Your task to perform on an android device: visit the assistant section in the google photos Image 0: 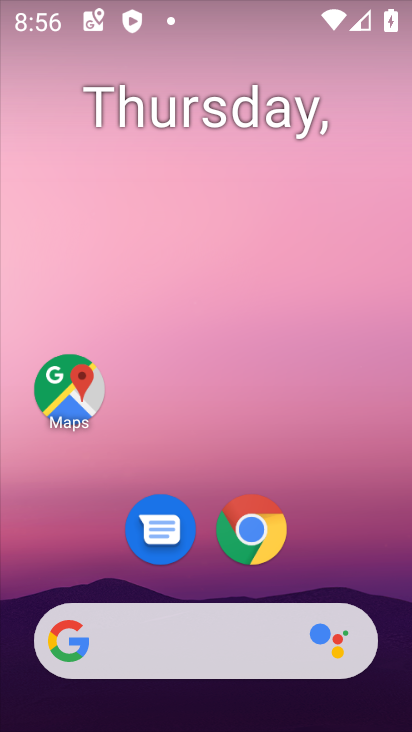
Step 0: drag from (201, 698) to (204, 135)
Your task to perform on an android device: visit the assistant section in the google photos Image 1: 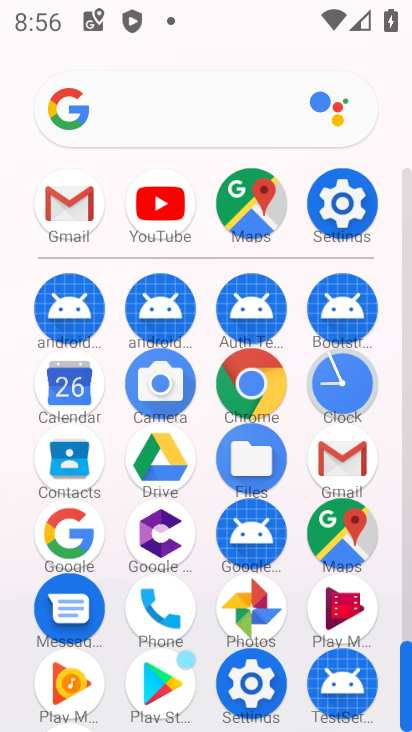
Step 1: click (256, 602)
Your task to perform on an android device: visit the assistant section in the google photos Image 2: 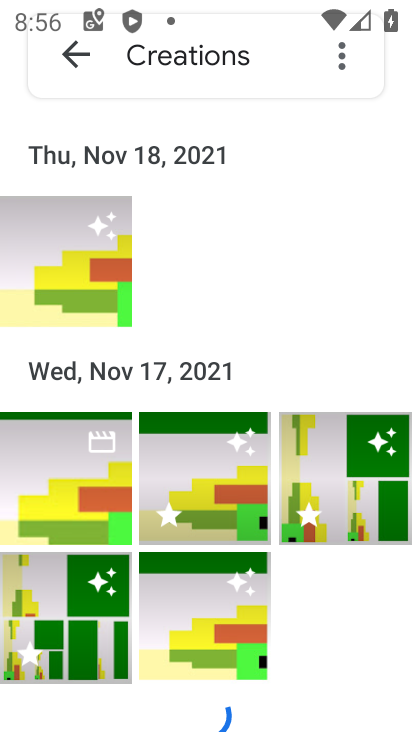
Step 2: click (79, 53)
Your task to perform on an android device: visit the assistant section in the google photos Image 3: 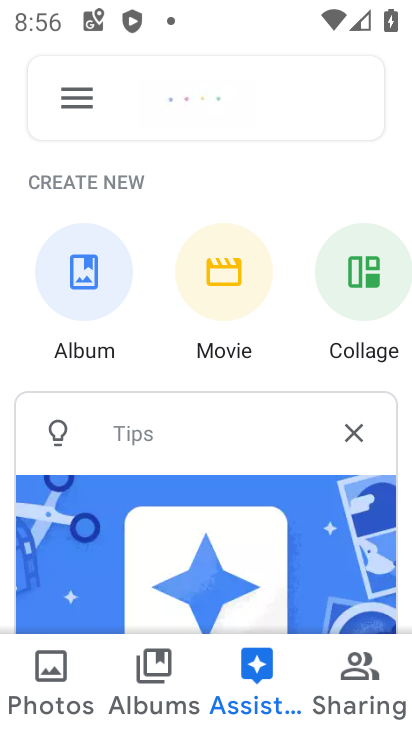
Step 3: click (252, 690)
Your task to perform on an android device: visit the assistant section in the google photos Image 4: 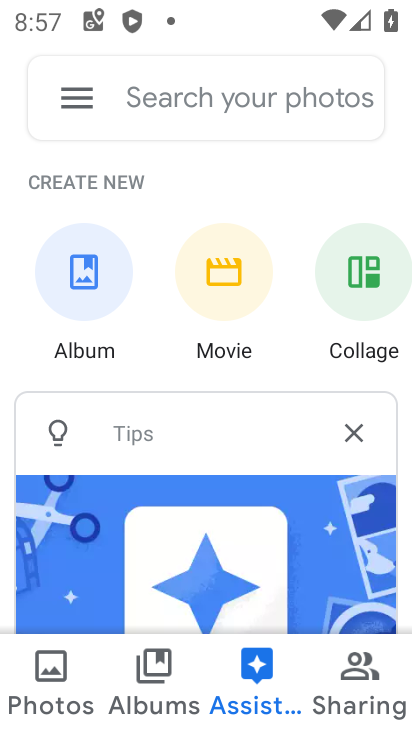
Step 4: task complete